Your task to perform on an android device: Open Amazon Image 0: 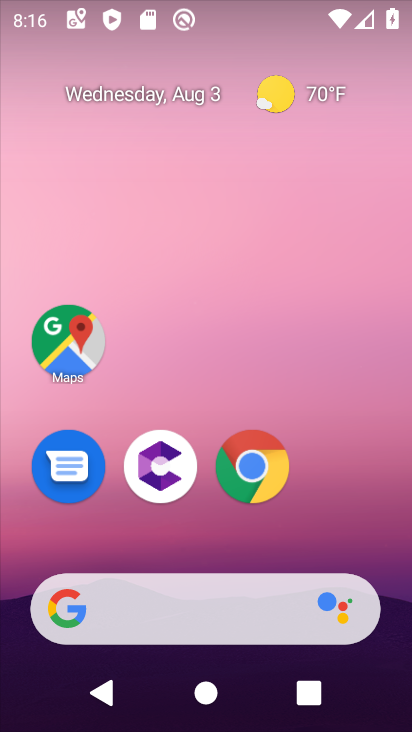
Step 0: drag from (362, 478) to (311, 130)
Your task to perform on an android device: Open Amazon Image 1: 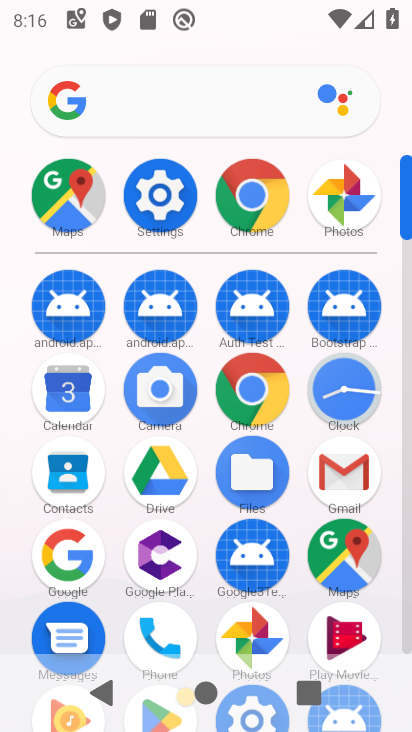
Step 1: click (254, 384)
Your task to perform on an android device: Open Amazon Image 2: 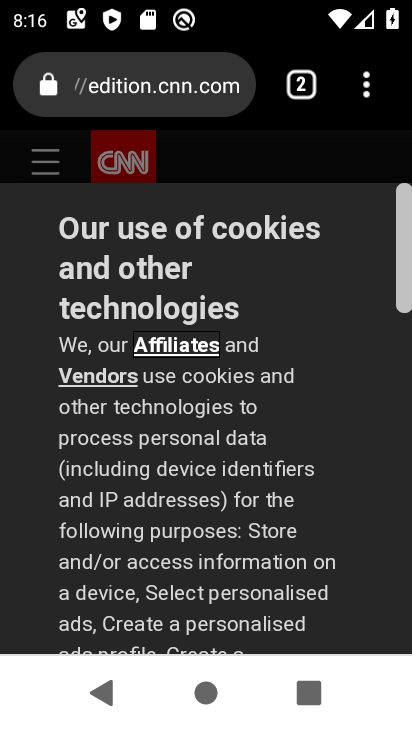
Step 2: click (208, 95)
Your task to perform on an android device: Open Amazon Image 3: 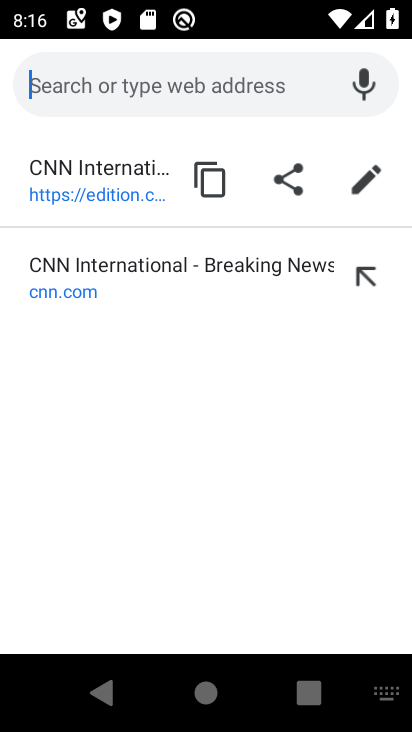
Step 3: type "amazon"
Your task to perform on an android device: Open Amazon Image 4: 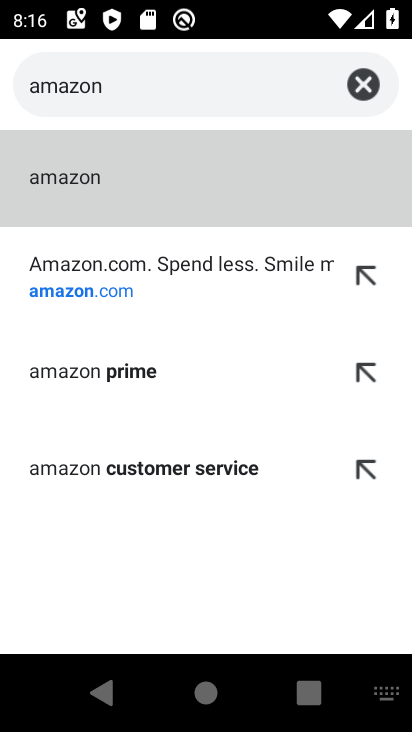
Step 4: click (141, 296)
Your task to perform on an android device: Open Amazon Image 5: 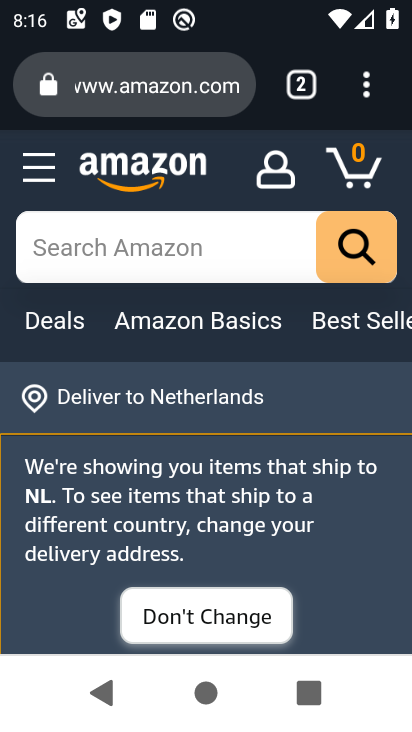
Step 5: task complete